Your task to perform on an android device: Do I have any events today? Image 0: 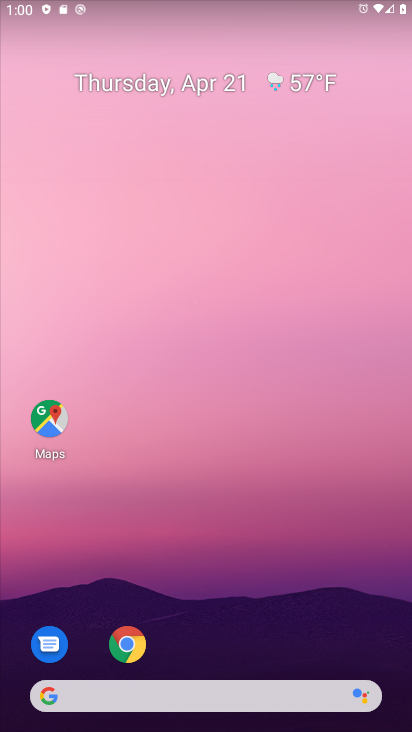
Step 0: drag from (200, 670) to (111, 66)
Your task to perform on an android device: Do I have any events today? Image 1: 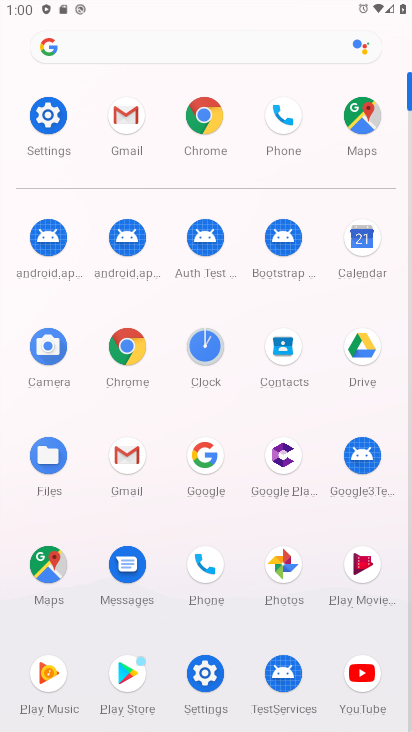
Step 1: click (364, 237)
Your task to perform on an android device: Do I have any events today? Image 2: 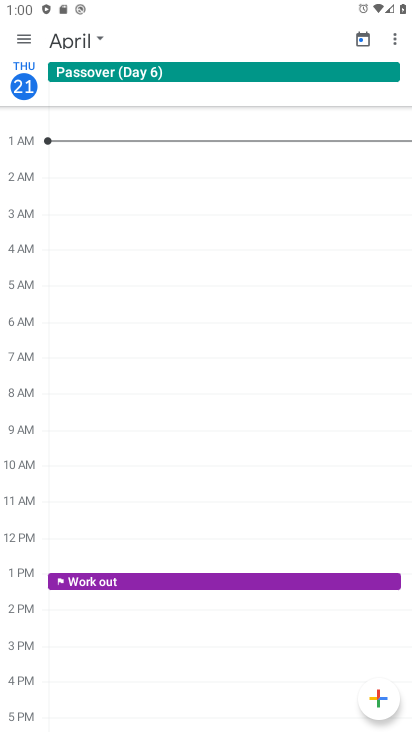
Step 2: task complete